Your task to perform on an android device: open app "Google Play Games" Image 0: 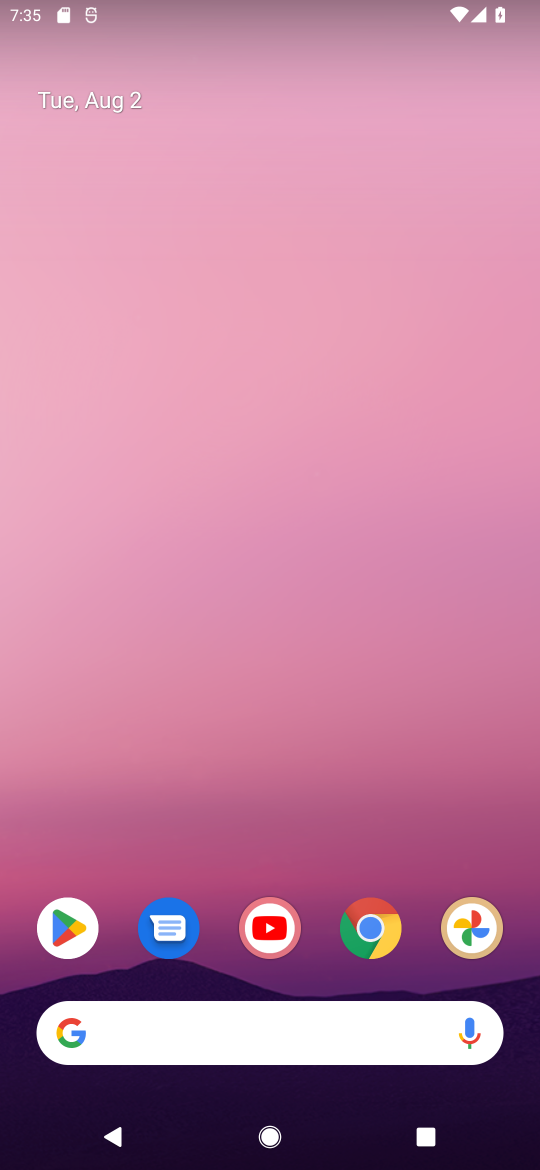
Step 0: click (59, 899)
Your task to perform on an android device: open app "Google Play Games" Image 1: 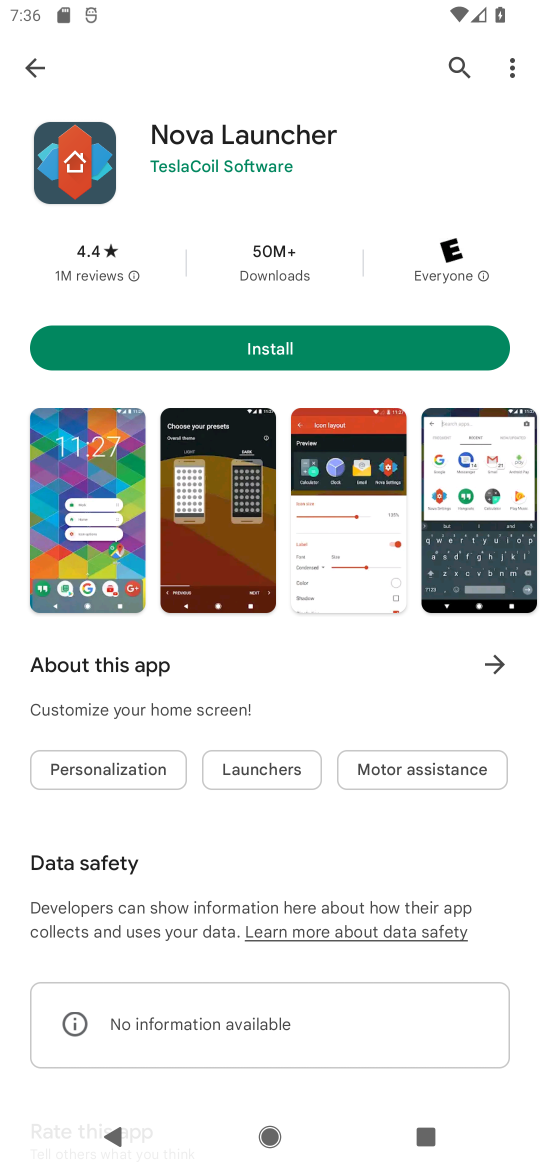
Step 1: click (444, 52)
Your task to perform on an android device: open app "Google Play Games" Image 2: 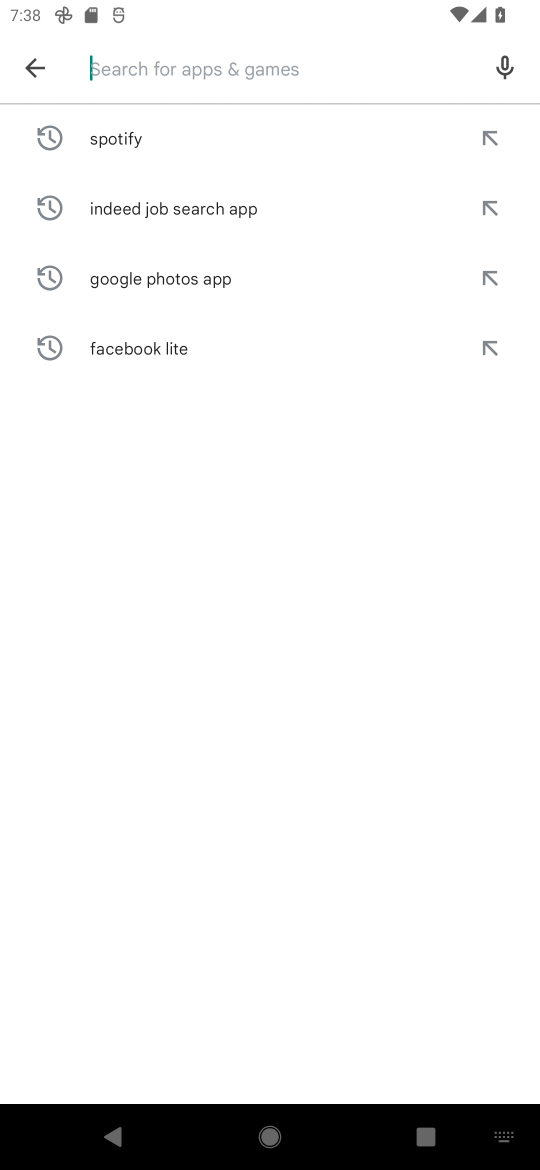
Step 2: type "google play game "
Your task to perform on an android device: open app "Google Play Games" Image 3: 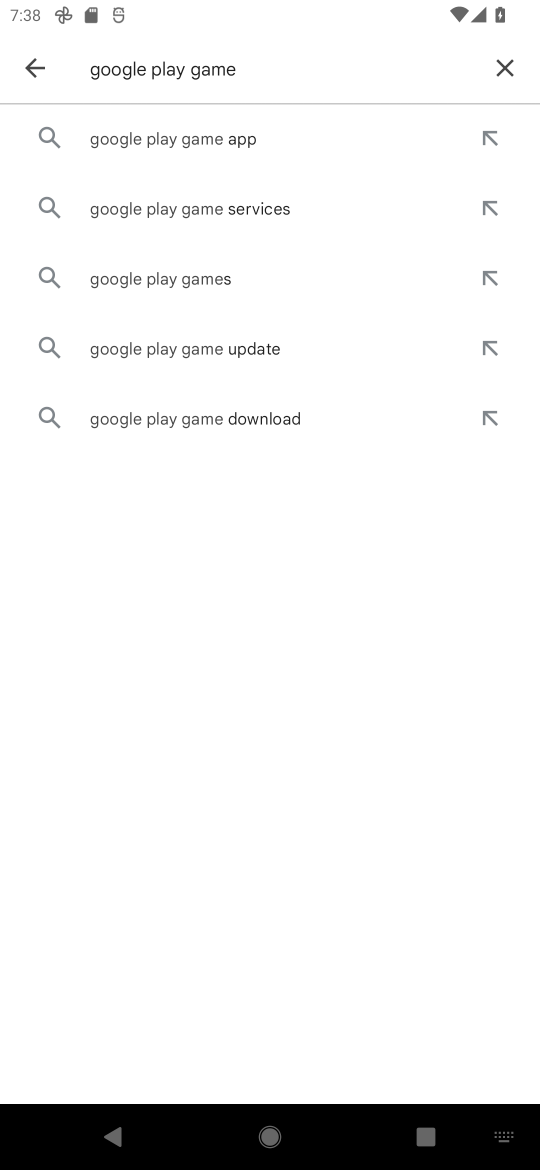
Step 3: click (280, 125)
Your task to perform on an android device: open app "Google Play Games" Image 4: 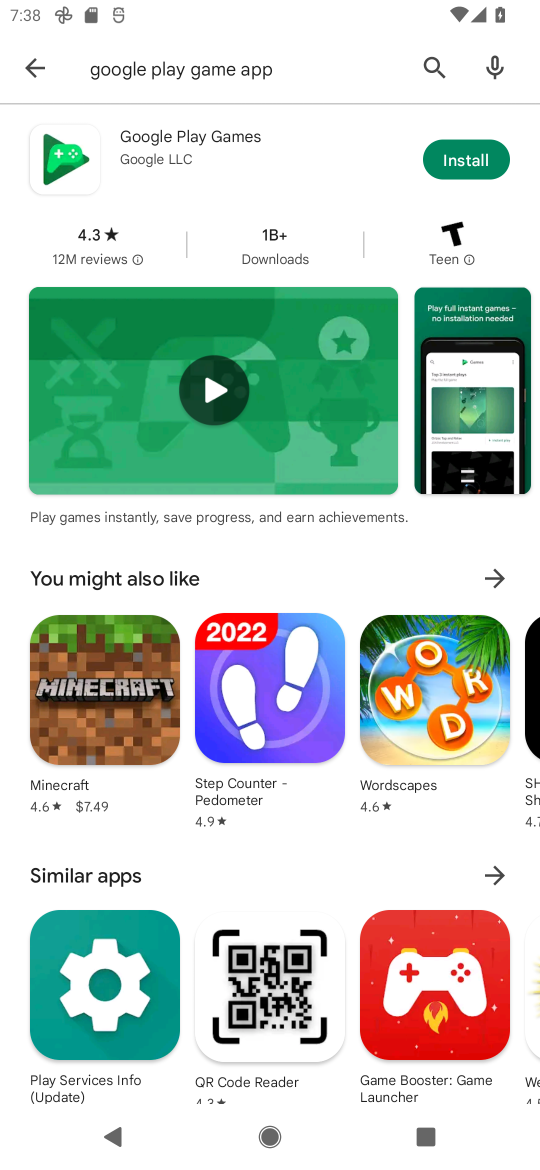
Step 4: task complete